Your task to perform on an android device: change timer sound Image 0: 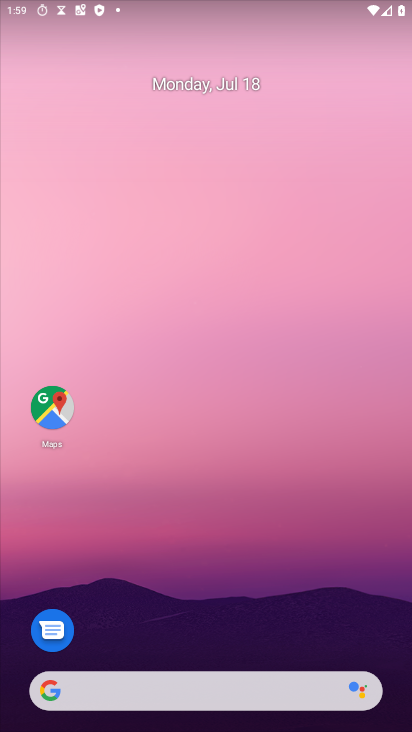
Step 0: drag from (261, 685) to (311, 131)
Your task to perform on an android device: change timer sound Image 1: 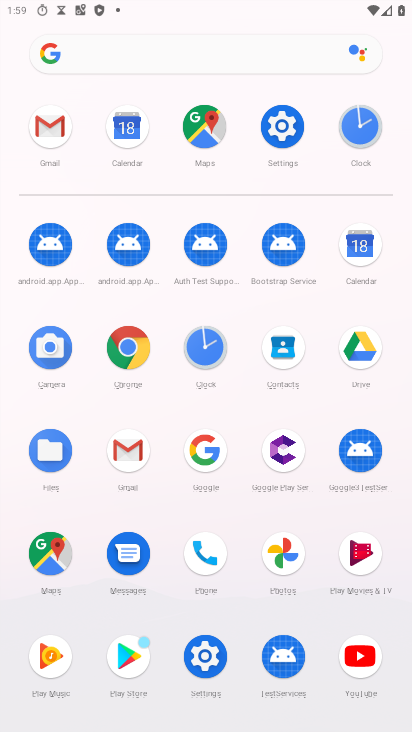
Step 1: click (204, 343)
Your task to perform on an android device: change timer sound Image 2: 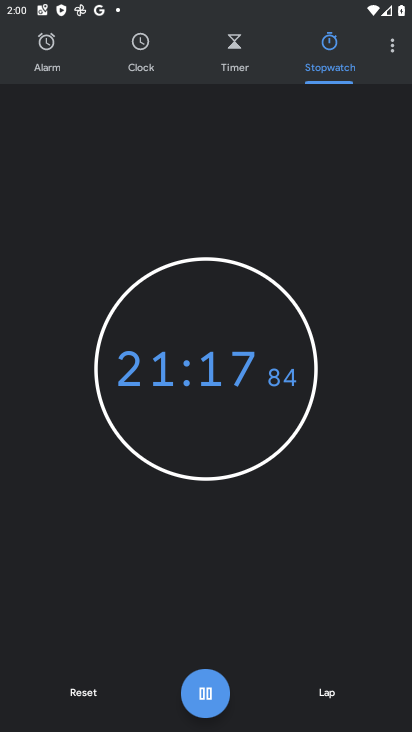
Step 2: click (387, 52)
Your task to perform on an android device: change timer sound Image 3: 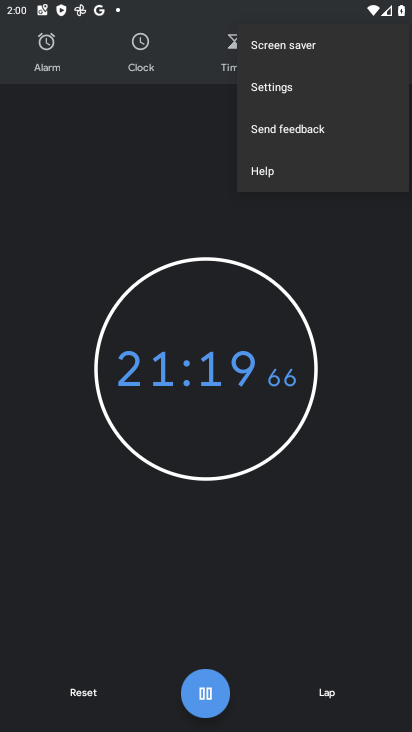
Step 3: click (233, 57)
Your task to perform on an android device: change timer sound Image 4: 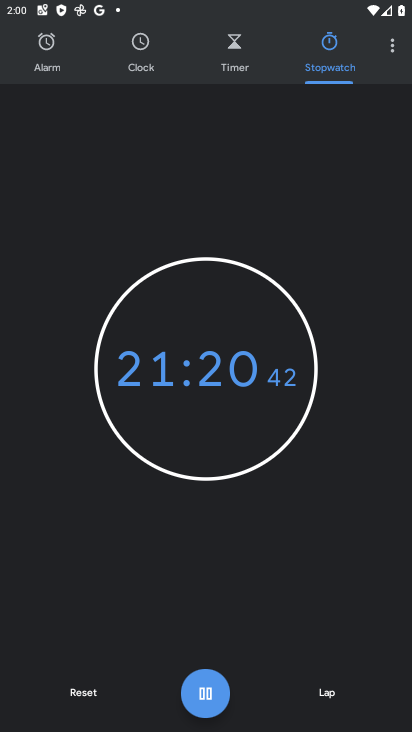
Step 4: click (223, 58)
Your task to perform on an android device: change timer sound Image 5: 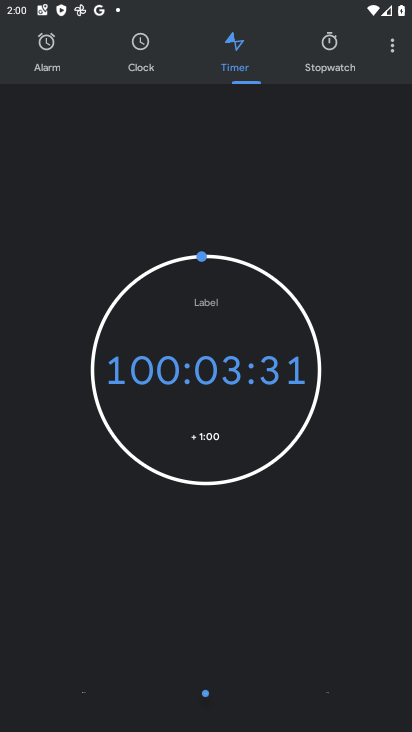
Step 5: click (229, 58)
Your task to perform on an android device: change timer sound Image 6: 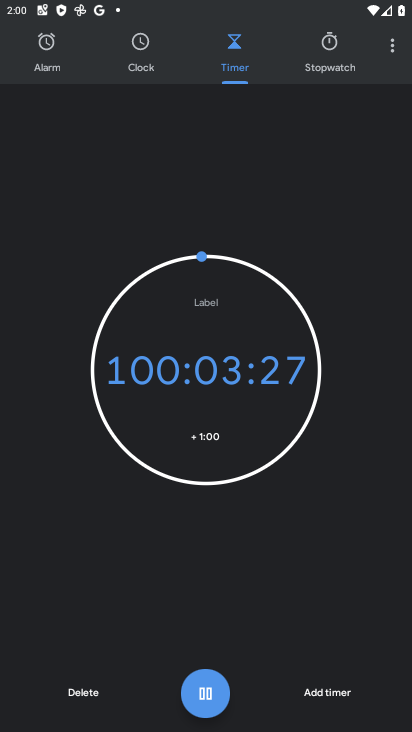
Step 6: task complete